Your task to perform on an android device: toggle location history Image 0: 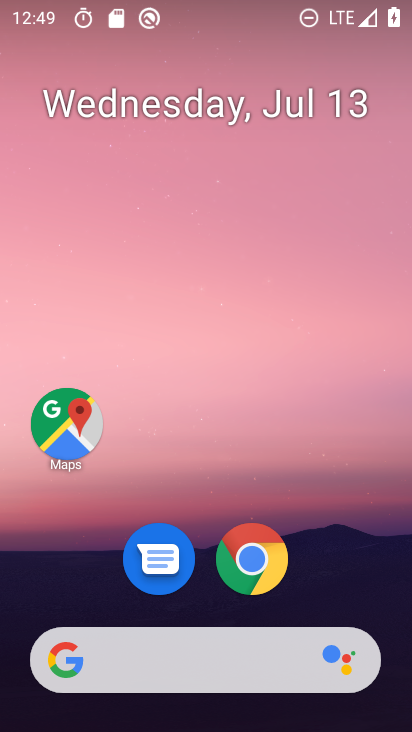
Step 0: drag from (224, 700) to (231, 316)
Your task to perform on an android device: toggle location history Image 1: 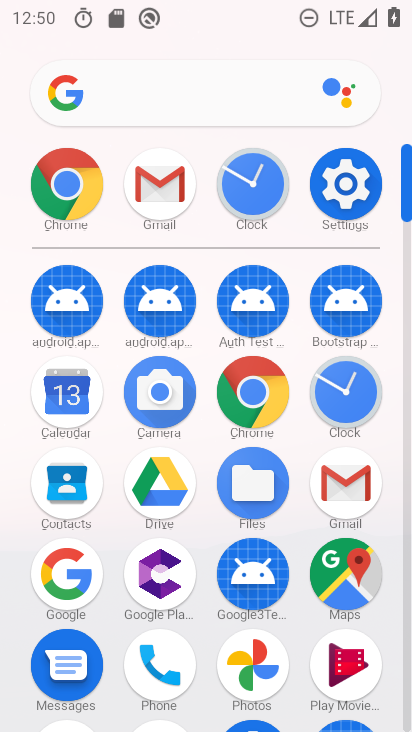
Step 1: drag from (215, 529) to (263, 290)
Your task to perform on an android device: toggle location history Image 2: 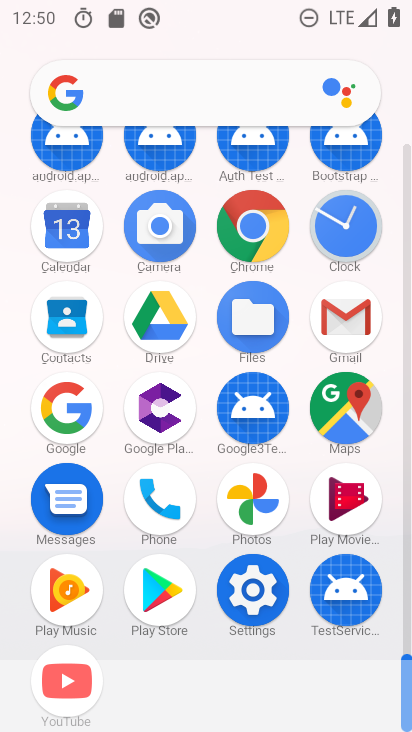
Step 2: click (263, 602)
Your task to perform on an android device: toggle location history Image 3: 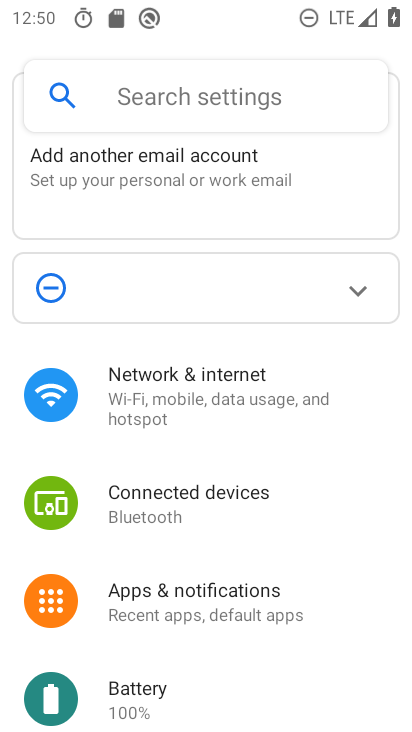
Step 3: drag from (155, 550) to (271, 190)
Your task to perform on an android device: toggle location history Image 4: 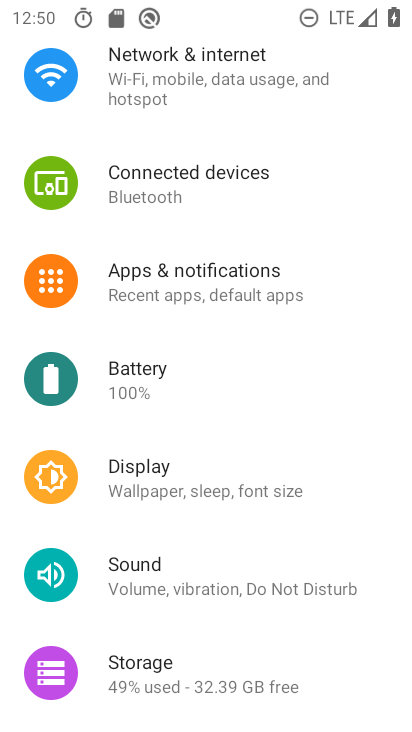
Step 4: drag from (183, 598) to (263, 334)
Your task to perform on an android device: toggle location history Image 5: 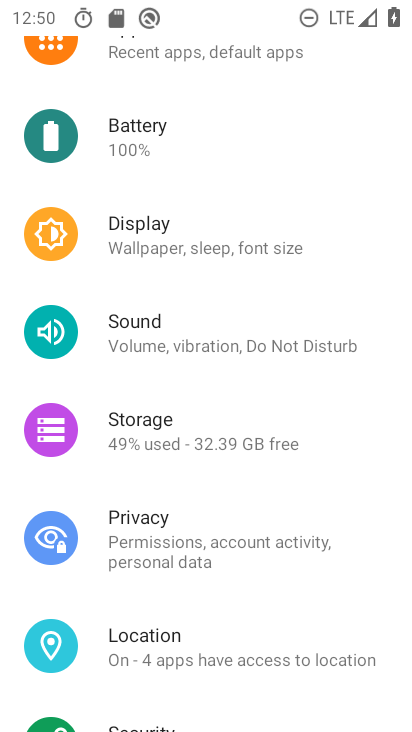
Step 5: click (196, 645)
Your task to perform on an android device: toggle location history Image 6: 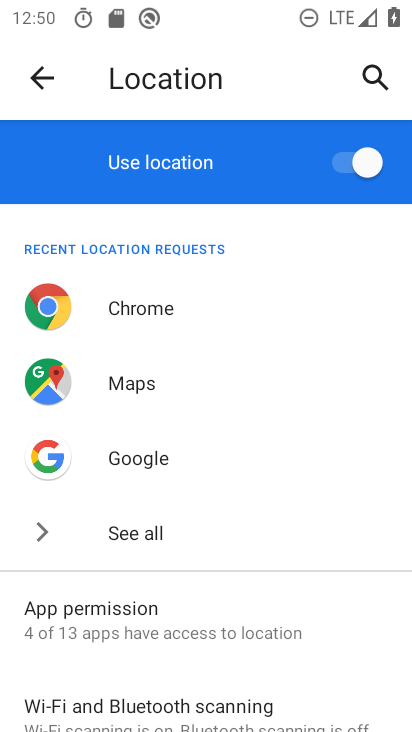
Step 6: drag from (159, 670) to (199, 366)
Your task to perform on an android device: toggle location history Image 7: 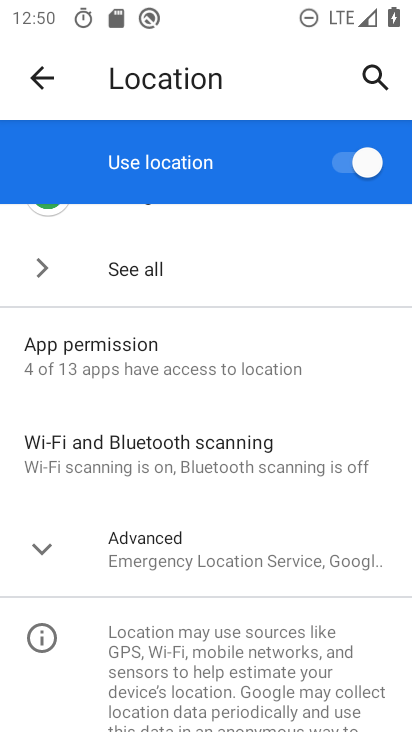
Step 7: click (169, 555)
Your task to perform on an android device: toggle location history Image 8: 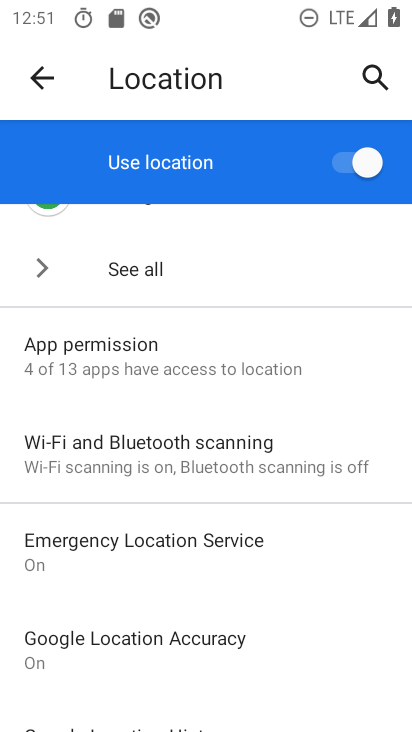
Step 8: drag from (161, 627) to (242, 349)
Your task to perform on an android device: toggle location history Image 9: 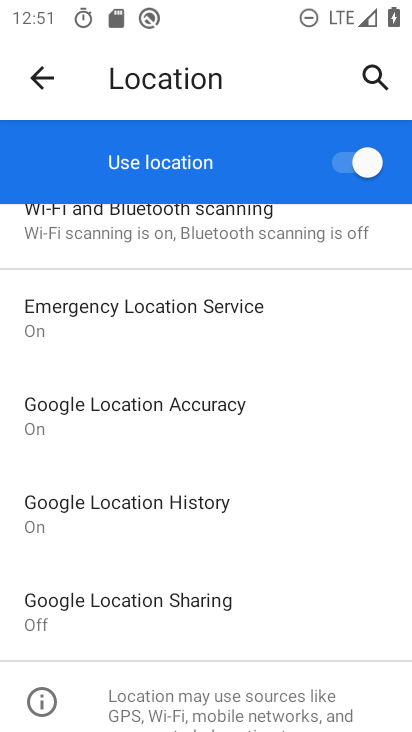
Step 9: click (169, 514)
Your task to perform on an android device: toggle location history Image 10: 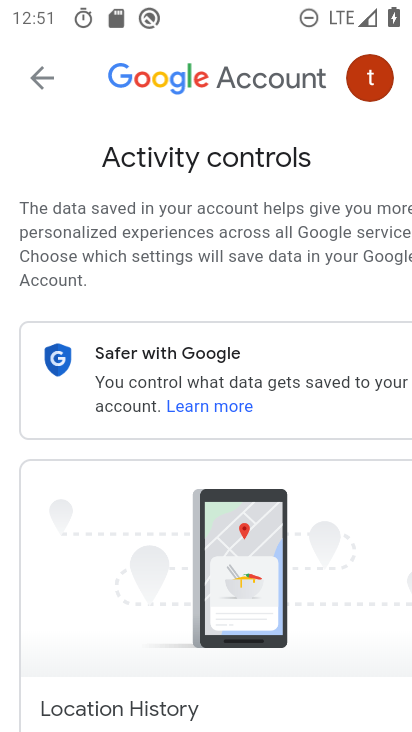
Step 10: drag from (193, 616) to (152, 259)
Your task to perform on an android device: toggle location history Image 11: 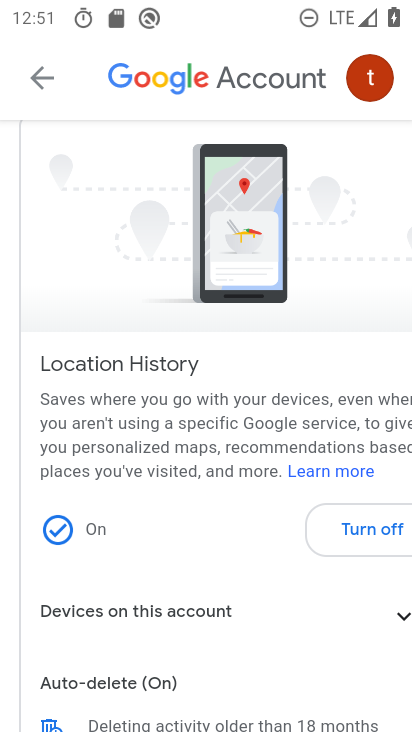
Step 11: click (349, 532)
Your task to perform on an android device: toggle location history Image 12: 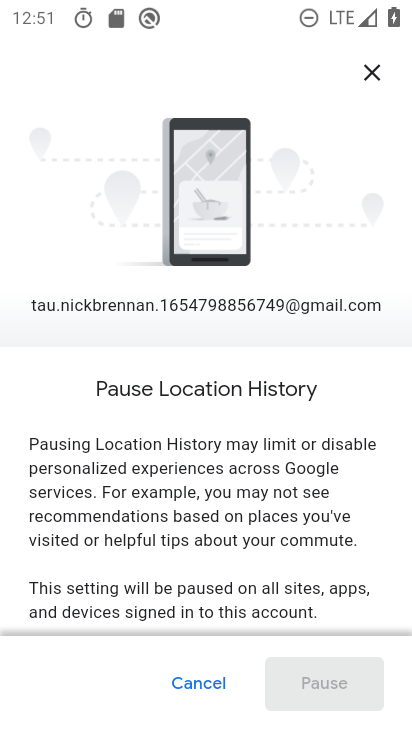
Step 12: drag from (289, 545) to (385, 40)
Your task to perform on an android device: toggle location history Image 13: 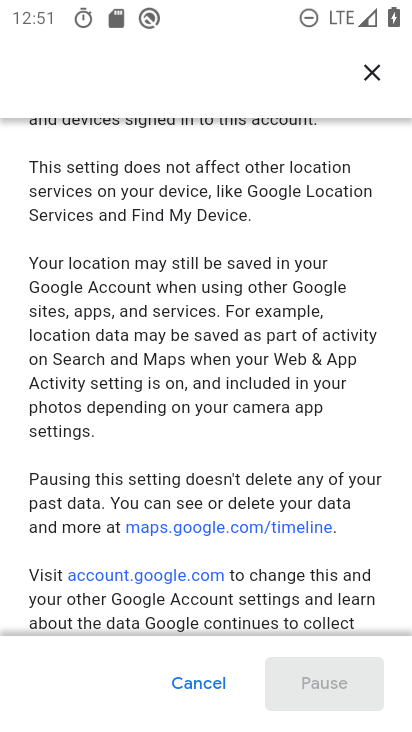
Step 13: drag from (277, 524) to (297, 107)
Your task to perform on an android device: toggle location history Image 14: 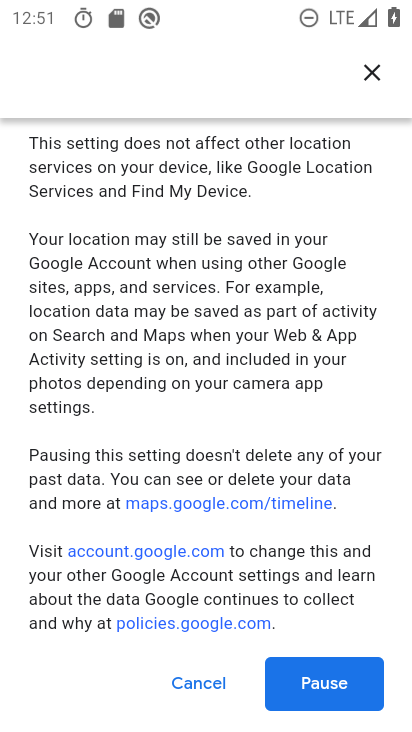
Step 14: click (311, 700)
Your task to perform on an android device: toggle location history Image 15: 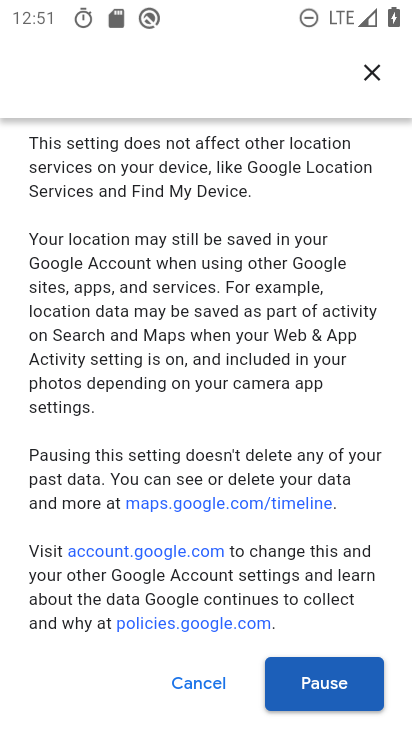
Step 15: click (339, 701)
Your task to perform on an android device: toggle location history Image 16: 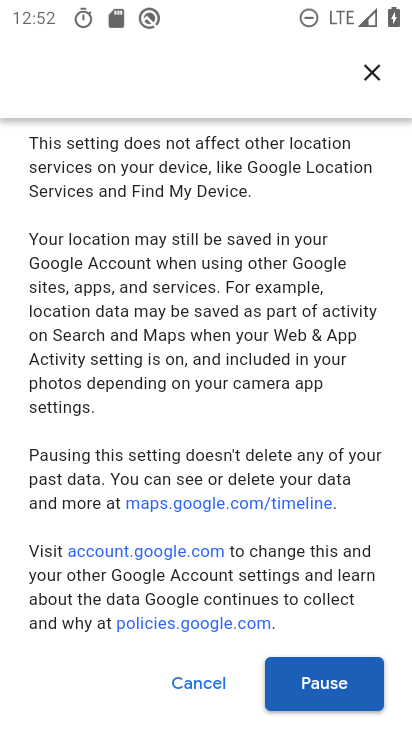
Step 16: click (355, 681)
Your task to perform on an android device: toggle location history Image 17: 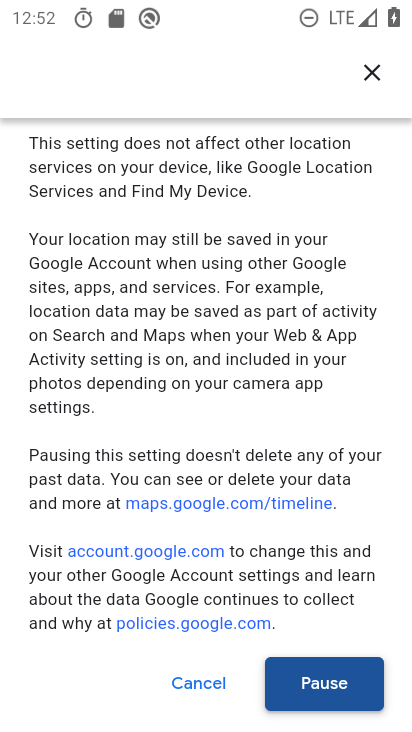
Step 17: click (331, 695)
Your task to perform on an android device: toggle location history Image 18: 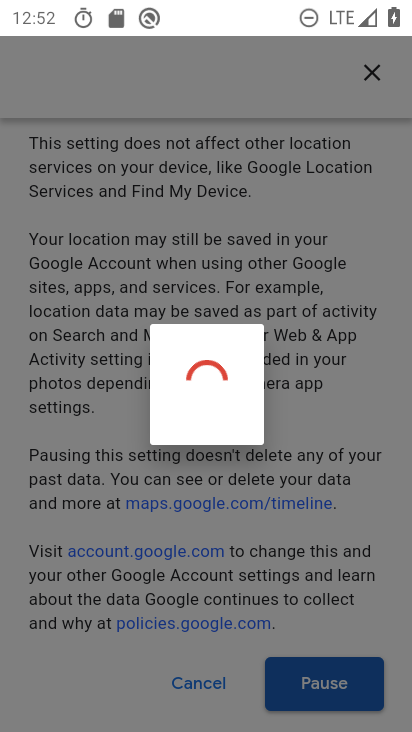
Step 18: click (331, 695)
Your task to perform on an android device: toggle location history Image 19: 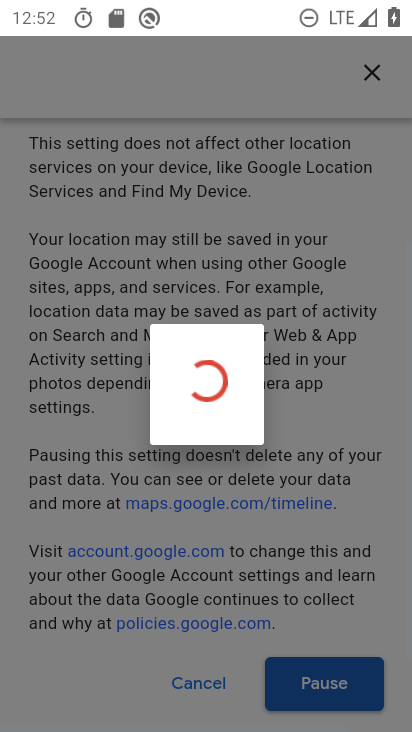
Step 19: click (329, 696)
Your task to perform on an android device: toggle location history Image 20: 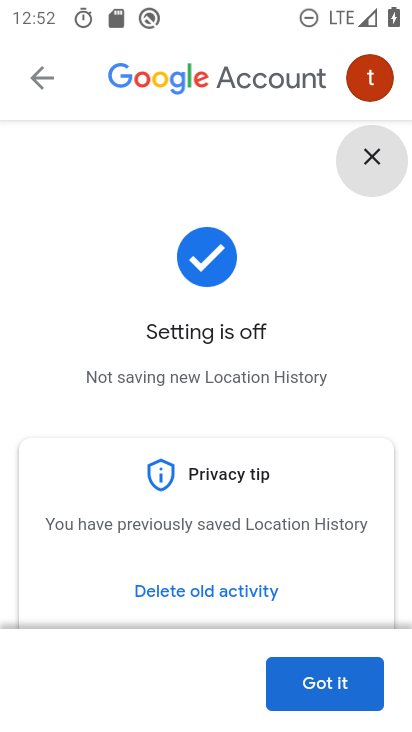
Step 20: click (318, 660)
Your task to perform on an android device: toggle location history Image 21: 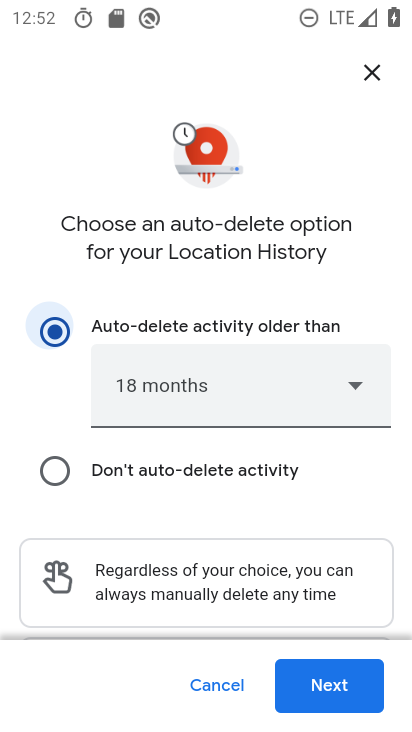
Step 21: task complete